Your task to perform on an android device: check out phone information Image 0: 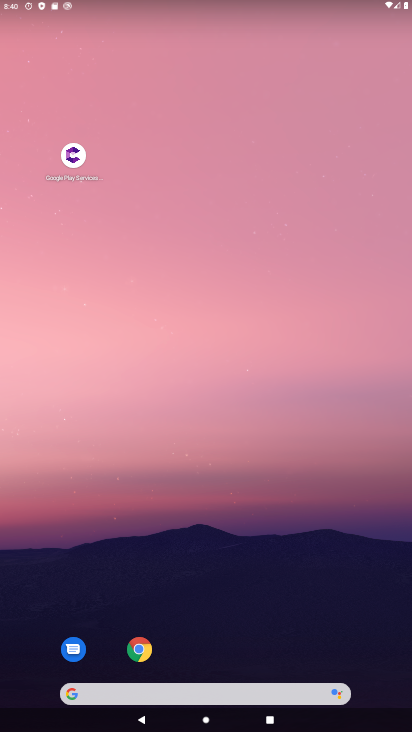
Step 0: drag from (142, 527) to (161, 6)
Your task to perform on an android device: check out phone information Image 1: 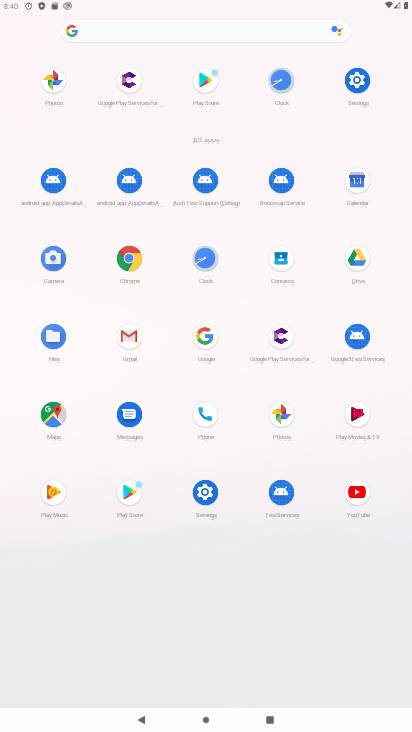
Step 1: click (206, 486)
Your task to perform on an android device: check out phone information Image 2: 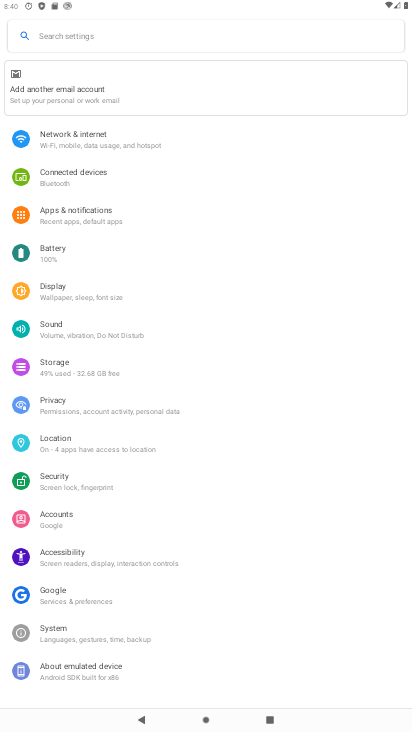
Step 2: click (128, 664)
Your task to perform on an android device: check out phone information Image 3: 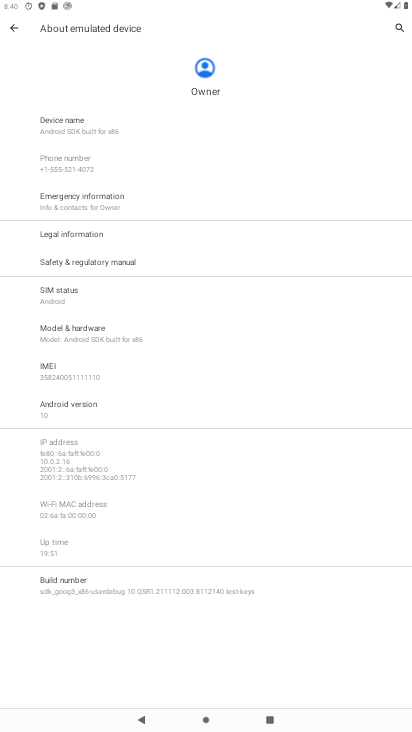
Step 3: task complete